Your task to perform on an android device: Show me recent news Image 0: 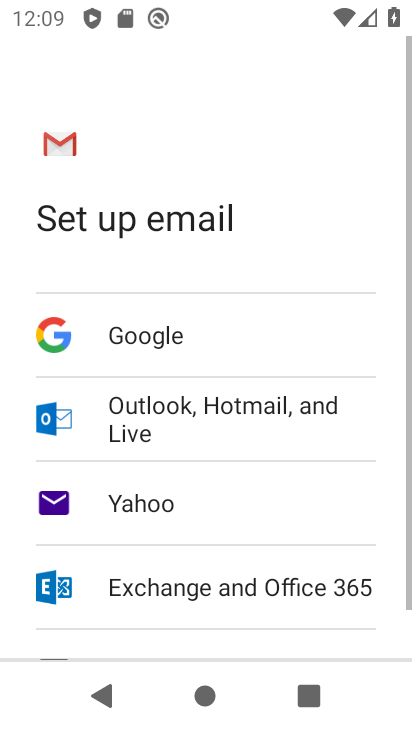
Step 0: press back button
Your task to perform on an android device: Show me recent news Image 1: 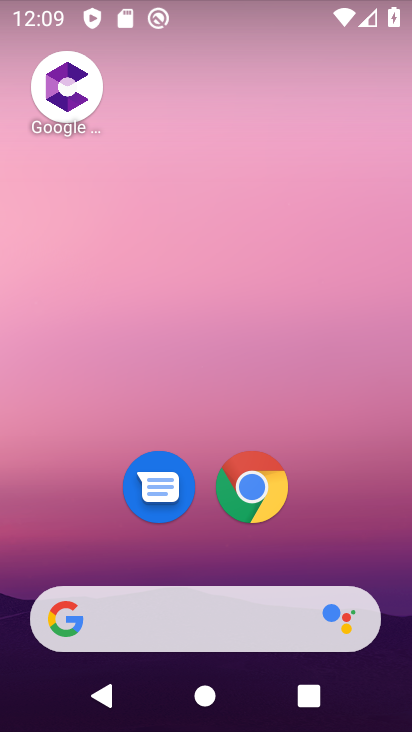
Step 1: drag from (339, 525) to (252, 36)
Your task to perform on an android device: Show me recent news Image 2: 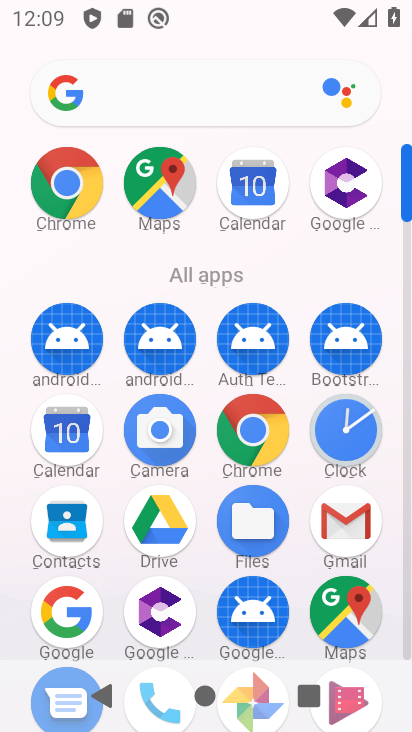
Step 2: click (251, 422)
Your task to perform on an android device: Show me recent news Image 3: 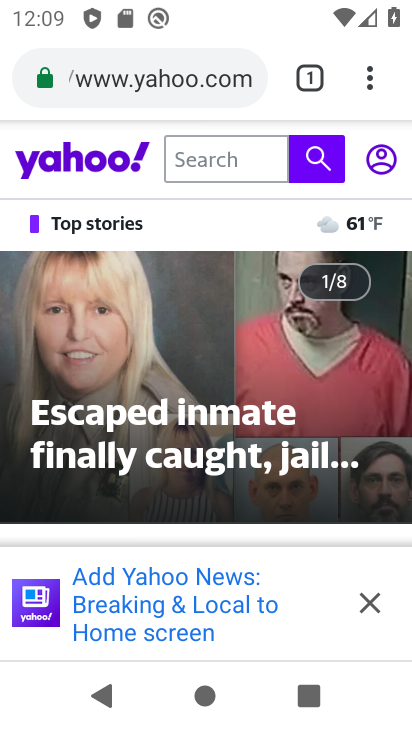
Step 3: click (167, 80)
Your task to perform on an android device: Show me recent news Image 4: 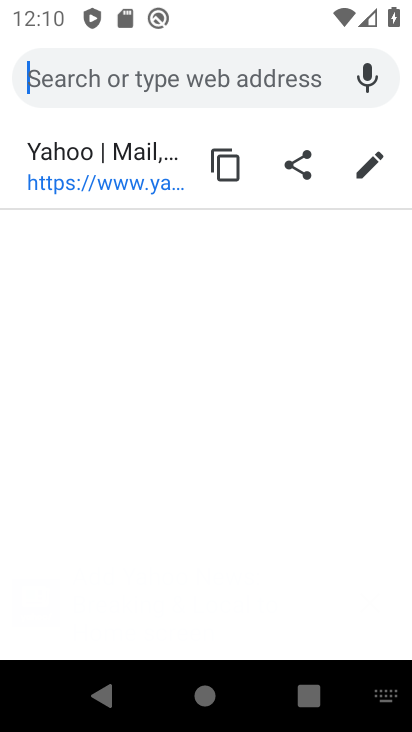
Step 4: type "Show me recent news"
Your task to perform on an android device: Show me recent news Image 5: 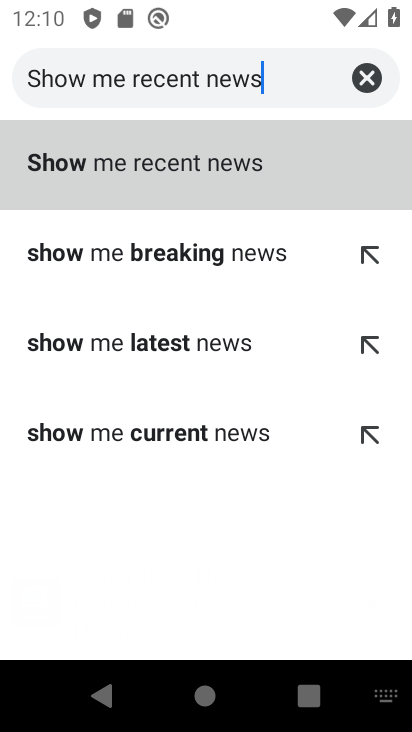
Step 5: type ""
Your task to perform on an android device: Show me recent news Image 6: 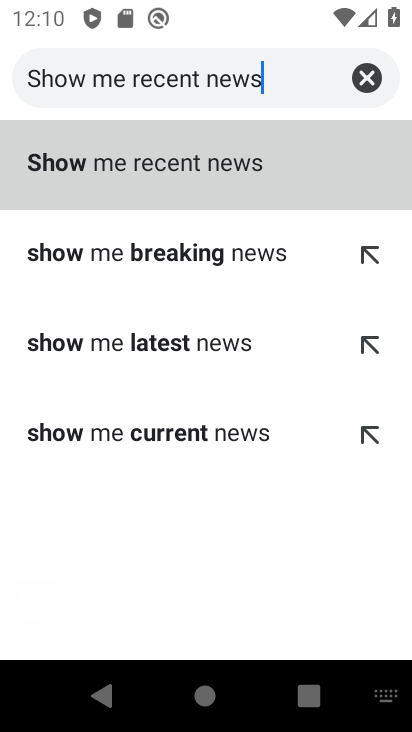
Step 6: click (200, 162)
Your task to perform on an android device: Show me recent news Image 7: 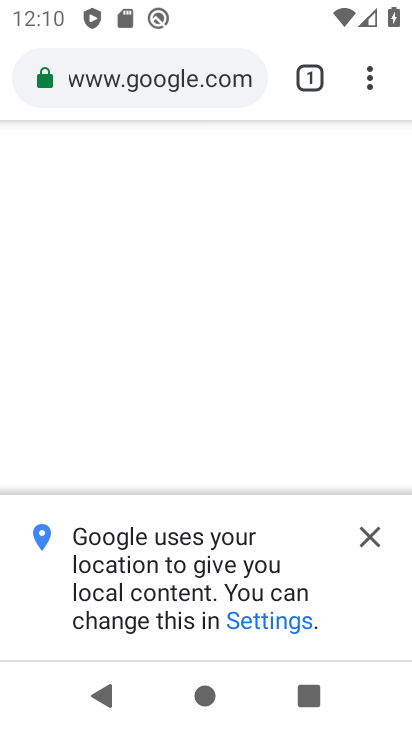
Step 7: click (375, 539)
Your task to perform on an android device: Show me recent news Image 8: 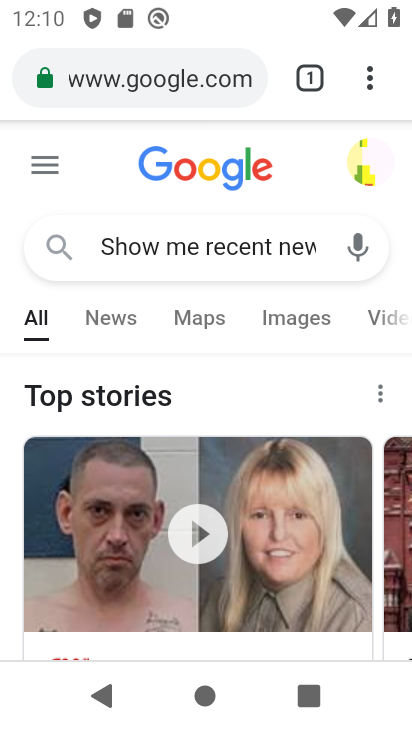
Step 8: task complete